Your task to perform on an android device: Go to Android settings Image 0: 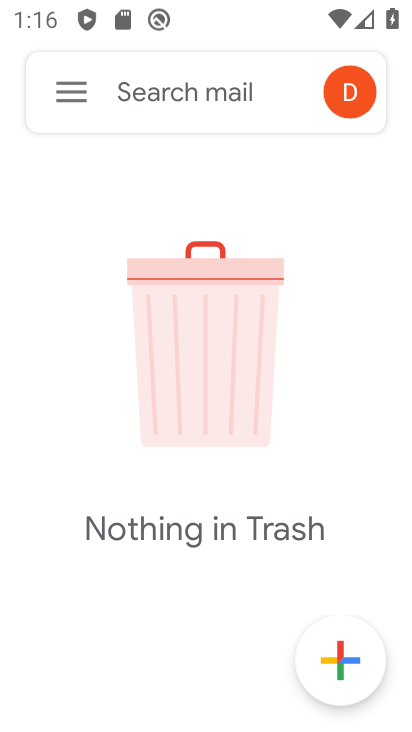
Step 0: press home button
Your task to perform on an android device: Go to Android settings Image 1: 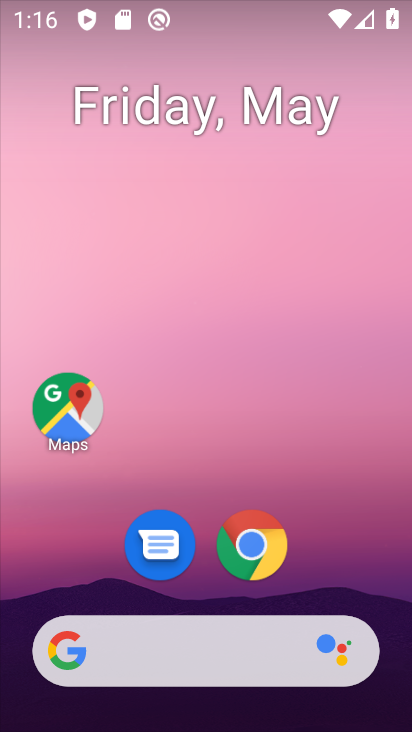
Step 1: drag from (373, 511) to (367, 7)
Your task to perform on an android device: Go to Android settings Image 2: 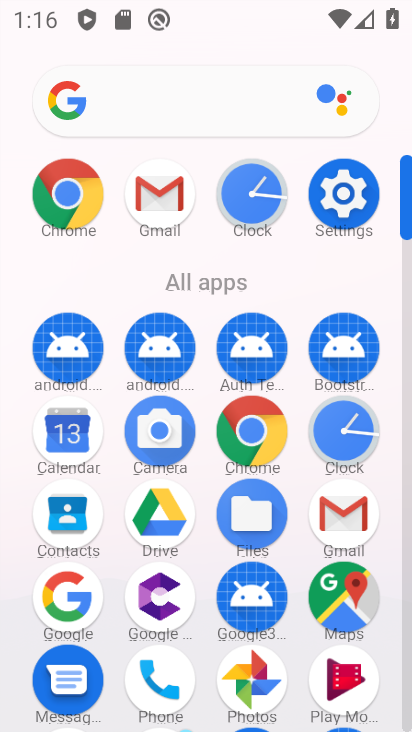
Step 2: click (352, 202)
Your task to perform on an android device: Go to Android settings Image 3: 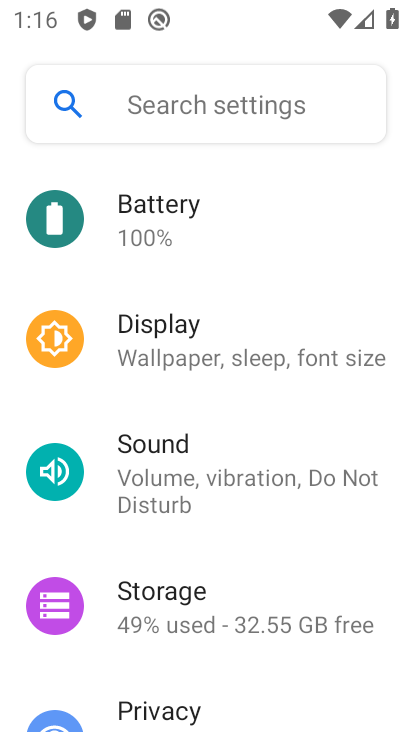
Step 3: task complete